Your task to perform on an android device: turn off location Image 0: 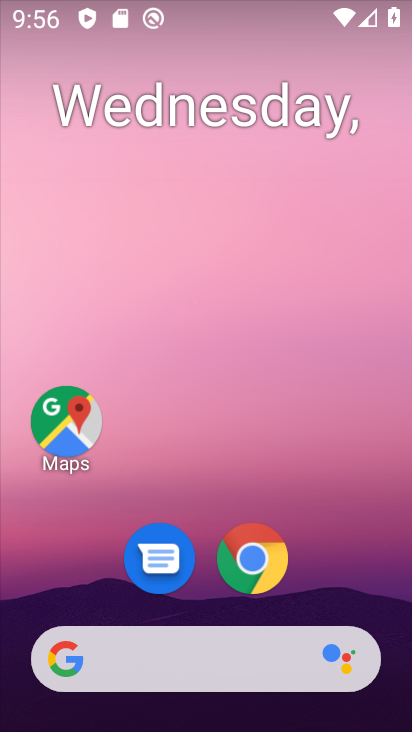
Step 0: drag from (130, 431) to (379, 64)
Your task to perform on an android device: turn off location Image 1: 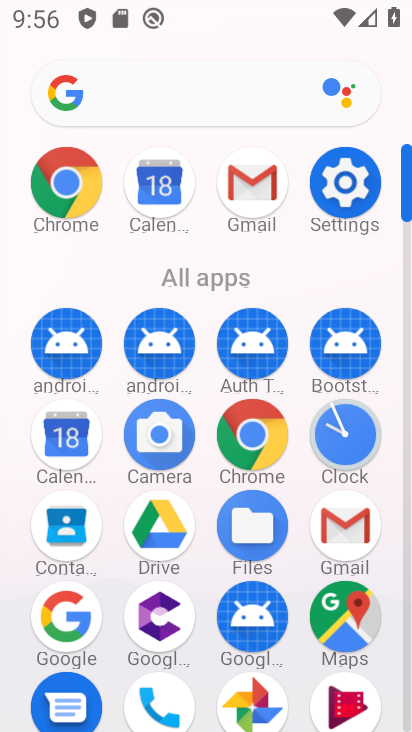
Step 1: click (326, 196)
Your task to perform on an android device: turn off location Image 2: 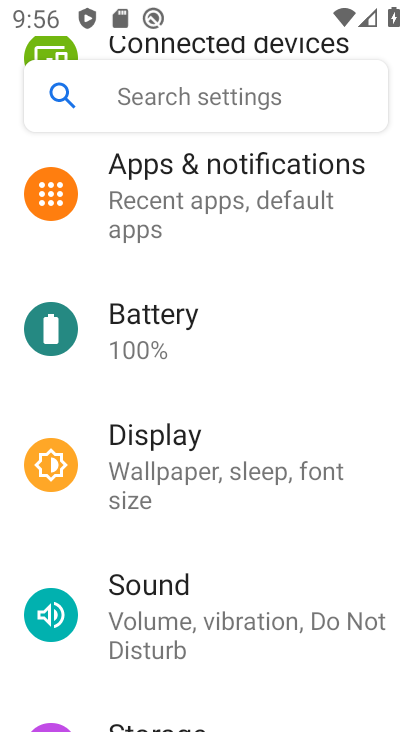
Step 2: drag from (29, 537) to (372, 61)
Your task to perform on an android device: turn off location Image 3: 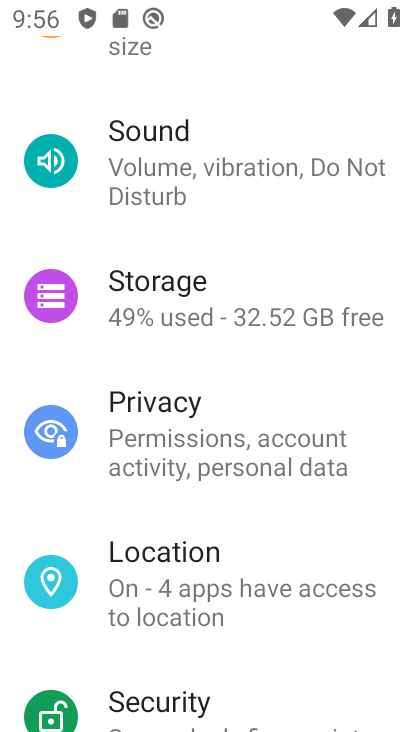
Step 3: click (141, 577)
Your task to perform on an android device: turn off location Image 4: 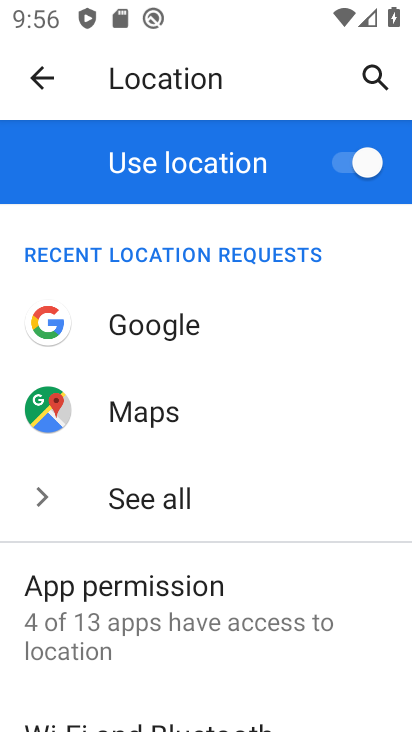
Step 4: click (369, 171)
Your task to perform on an android device: turn off location Image 5: 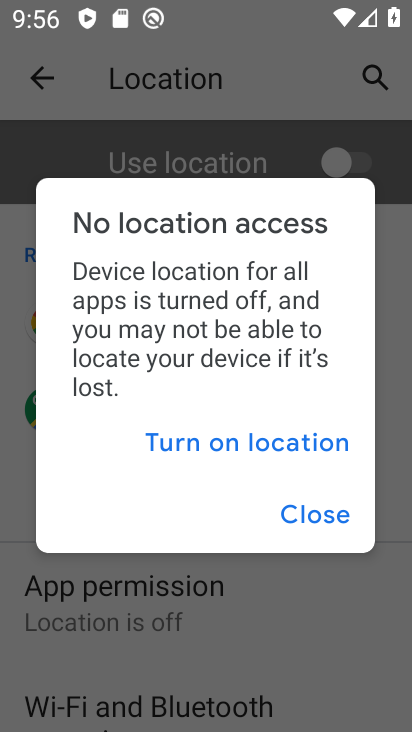
Step 5: task complete